Your task to perform on an android device: empty trash in the gmail app Image 0: 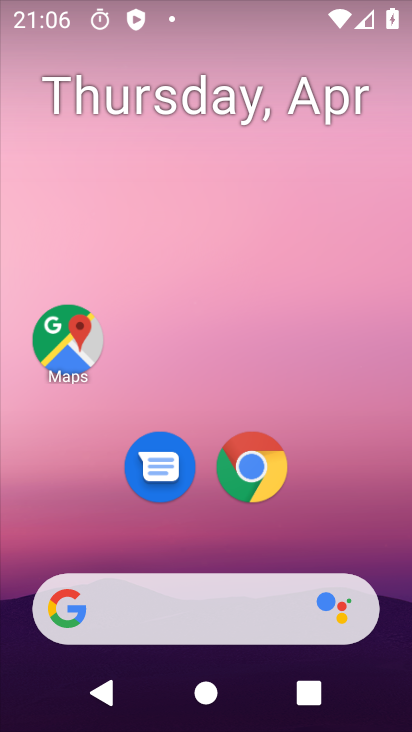
Step 0: drag from (219, 568) to (270, 8)
Your task to perform on an android device: empty trash in the gmail app Image 1: 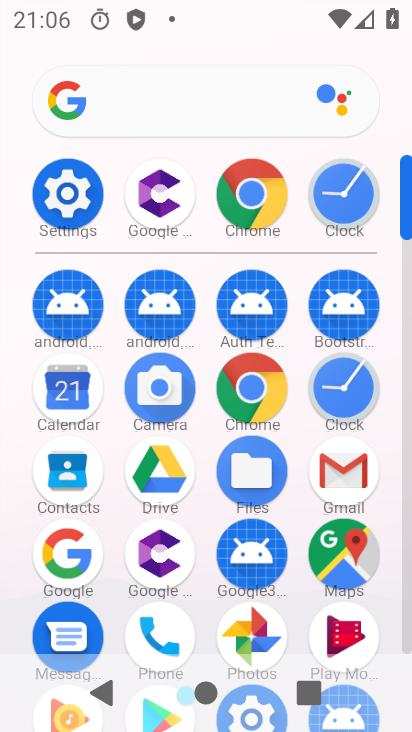
Step 1: click (346, 473)
Your task to perform on an android device: empty trash in the gmail app Image 2: 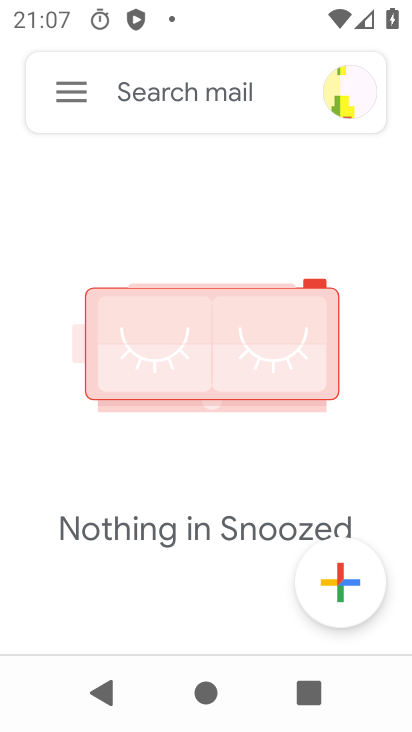
Step 2: click (68, 82)
Your task to perform on an android device: empty trash in the gmail app Image 3: 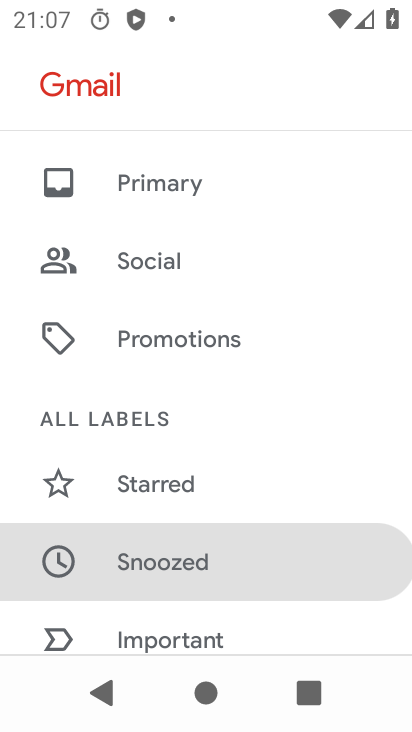
Step 3: drag from (198, 439) to (161, 69)
Your task to perform on an android device: empty trash in the gmail app Image 4: 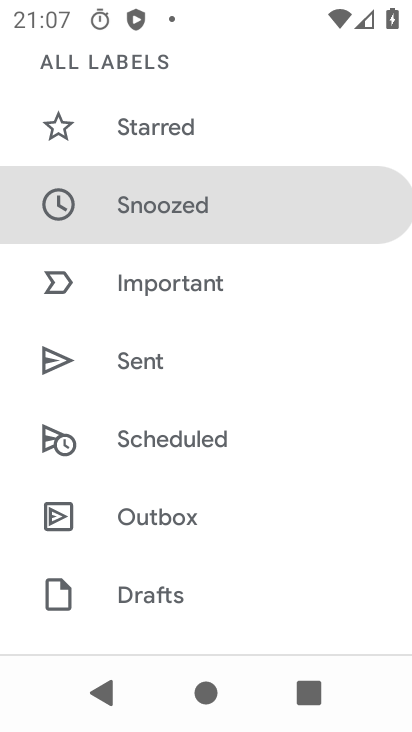
Step 4: drag from (163, 529) to (112, 112)
Your task to perform on an android device: empty trash in the gmail app Image 5: 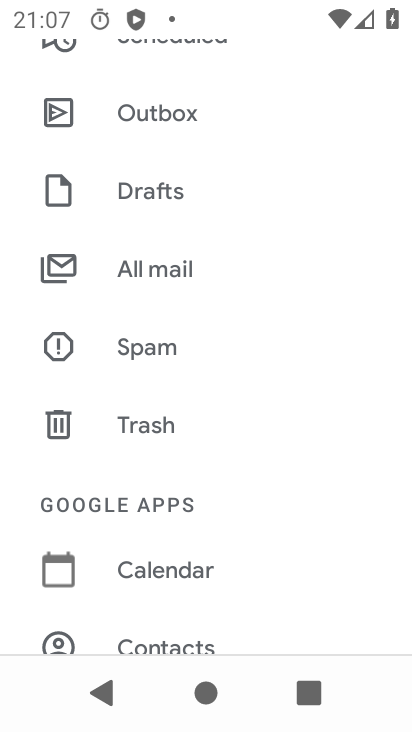
Step 5: click (165, 415)
Your task to perform on an android device: empty trash in the gmail app Image 6: 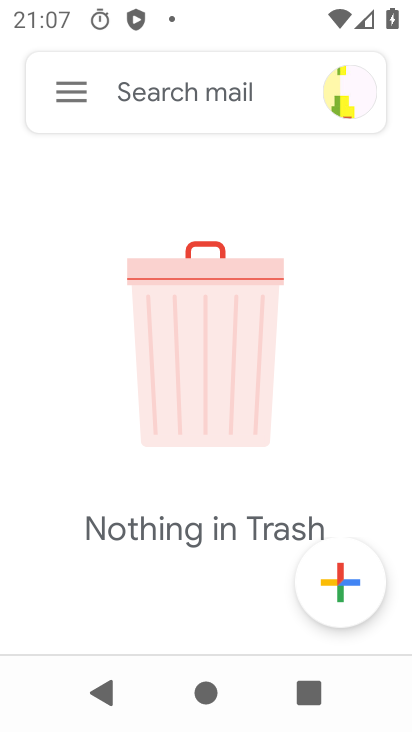
Step 6: task complete